Your task to perform on an android device: Open Youtube and go to "Your channel" Image 0: 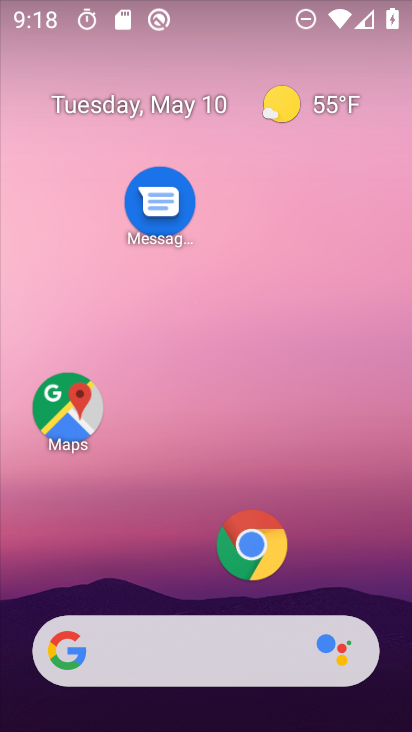
Step 0: drag from (181, 565) to (208, 232)
Your task to perform on an android device: Open Youtube and go to "Your channel" Image 1: 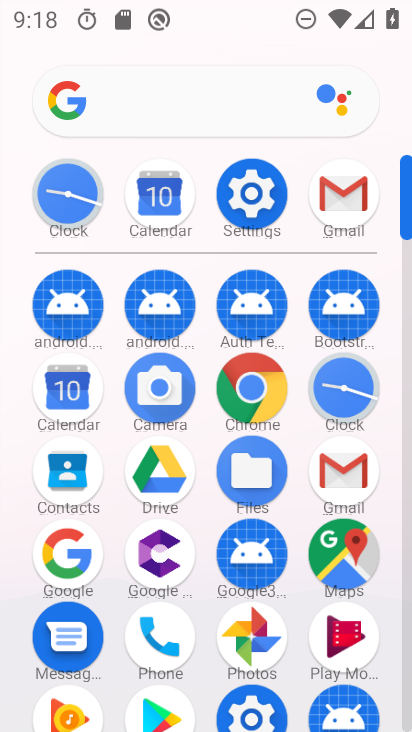
Step 1: drag from (210, 593) to (261, 260)
Your task to perform on an android device: Open Youtube and go to "Your channel" Image 2: 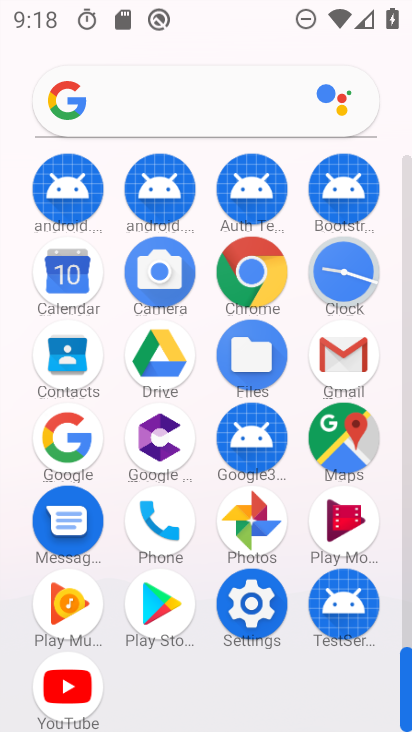
Step 2: click (73, 666)
Your task to perform on an android device: Open Youtube and go to "Your channel" Image 3: 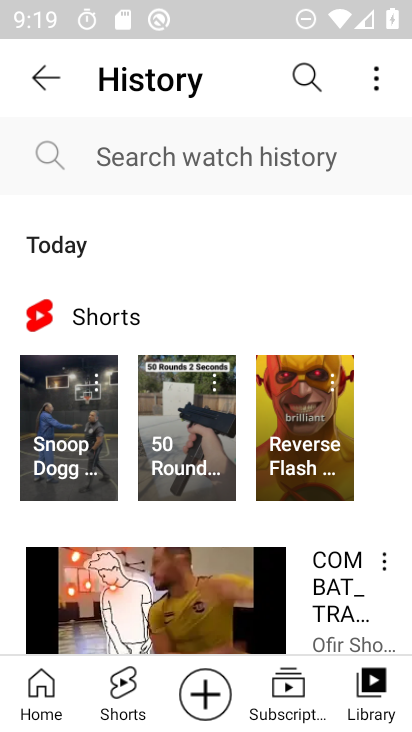
Step 3: click (42, 72)
Your task to perform on an android device: Open Youtube and go to "Your channel" Image 4: 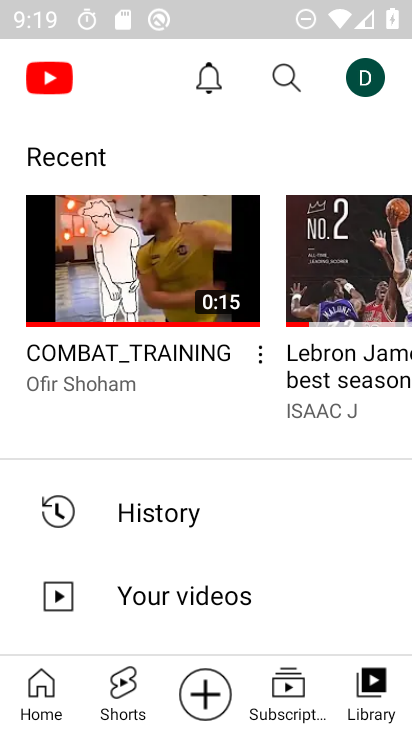
Step 4: click (347, 78)
Your task to perform on an android device: Open Youtube and go to "Your channel" Image 5: 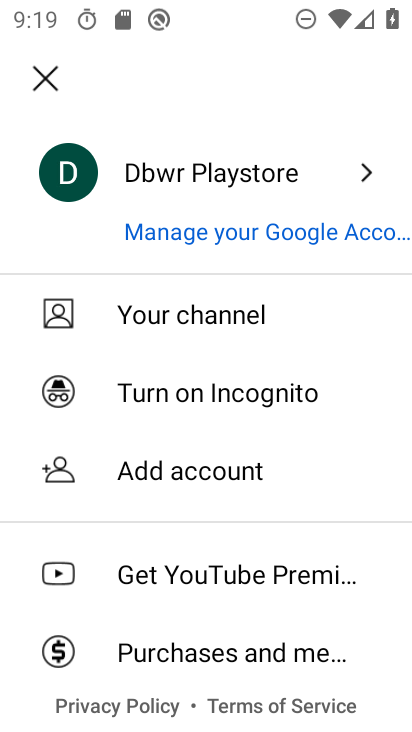
Step 5: click (160, 314)
Your task to perform on an android device: Open Youtube and go to "Your channel" Image 6: 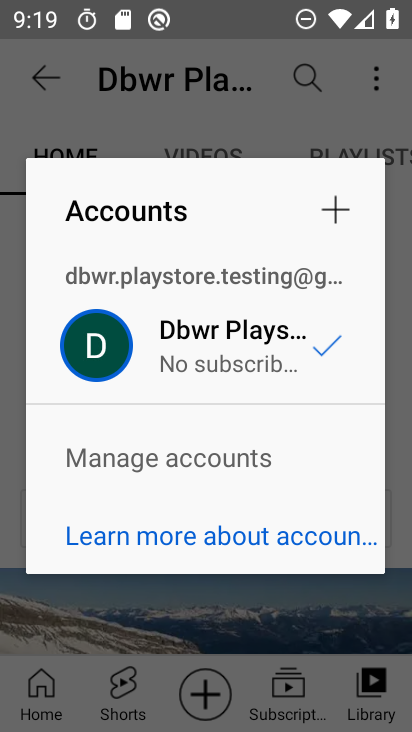
Step 6: task complete